Your task to perform on an android device: toggle priority inbox in the gmail app Image 0: 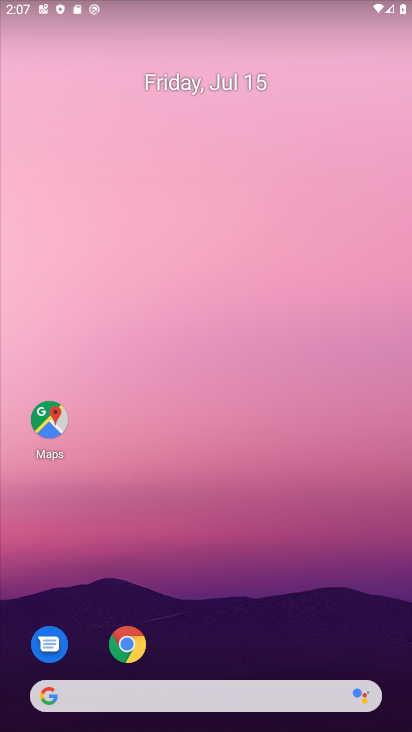
Step 0: drag from (366, 609) to (273, 57)
Your task to perform on an android device: toggle priority inbox in the gmail app Image 1: 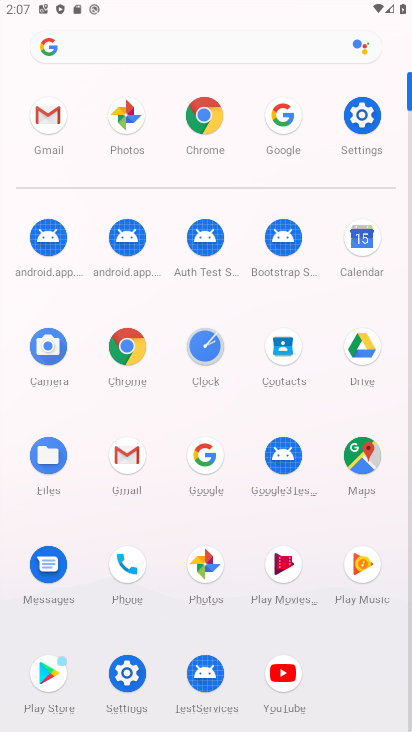
Step 1: click (50, 141)
Your task to perform on an android device: toggle priority inbox in the gmail app Image 2: 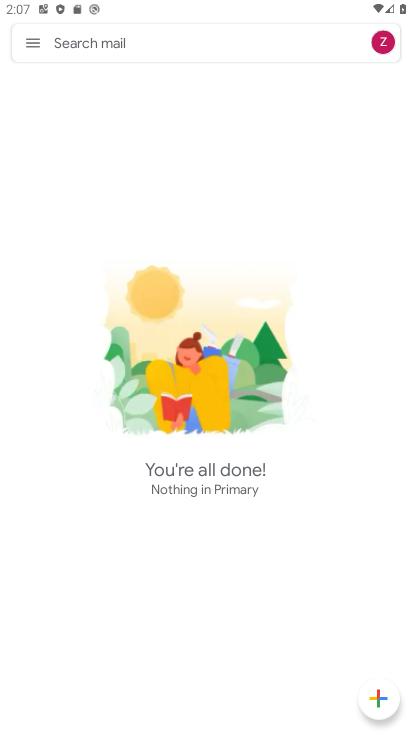
Step 2: click (10, 37)
Your task to perform on an android device: toggle priority inbox in the gmail app Image 3: 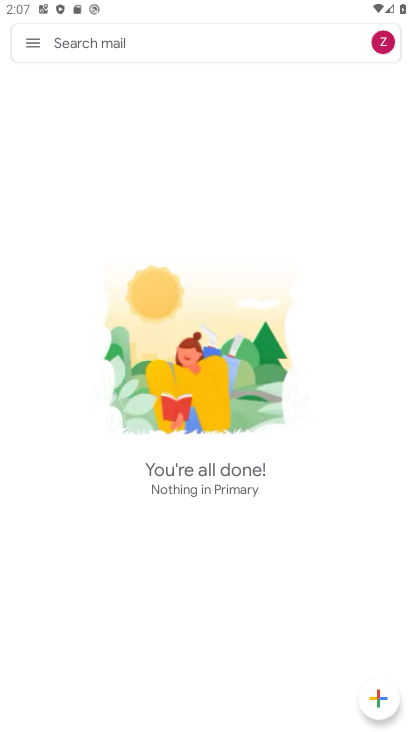
Step 3: click (34, 42)
Your task to perform on an android device: toggle priority inbox in the gmail app Image 4: 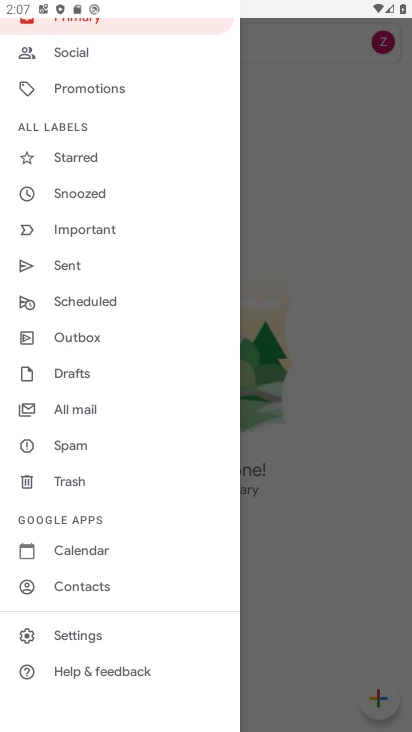
Step 4: click (58, 634)
Your task to perform on an android device: toggle priority inbox in the gmail app Image 5: 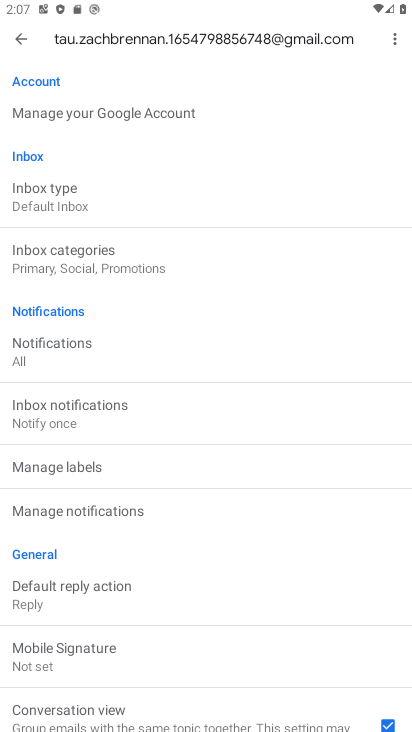
Step 5: click (83, 208)
Your task to perform on an android device: toggle priority inbox in the gmail app Image 6: 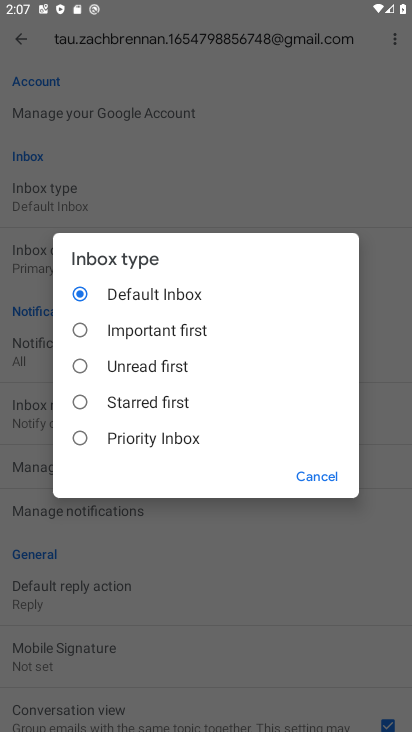
Step 6: click (105, 398)
Your task to perform on an android device: toggle priority inbox in the gmail app Image 7: 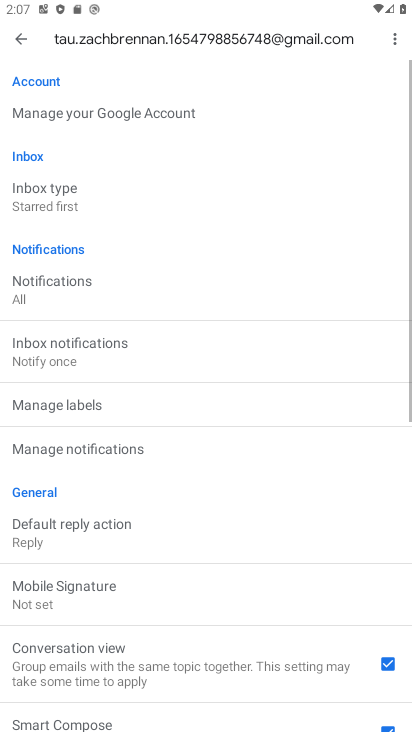
Step 7: task complete